Your task to perform on an android device: check the backup settings in the google photos Image 0: 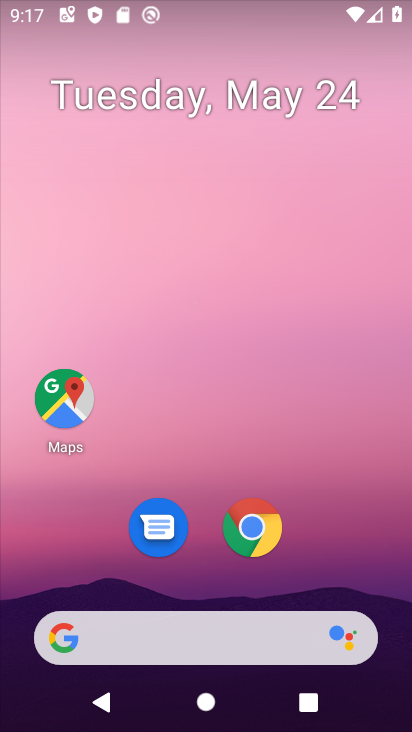
Step 0: drag from (192, 298) to (242, 67)
Your task to perform on an android device: check the backup settings in the google photos Image 1: 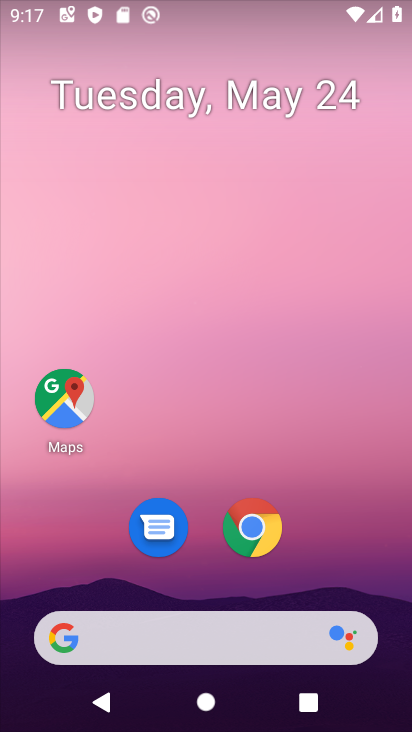
Step 1: drag from (191, 494) to (211, 89)
Your task to perform on an android device: check the backup settings in the google photos Image 2: 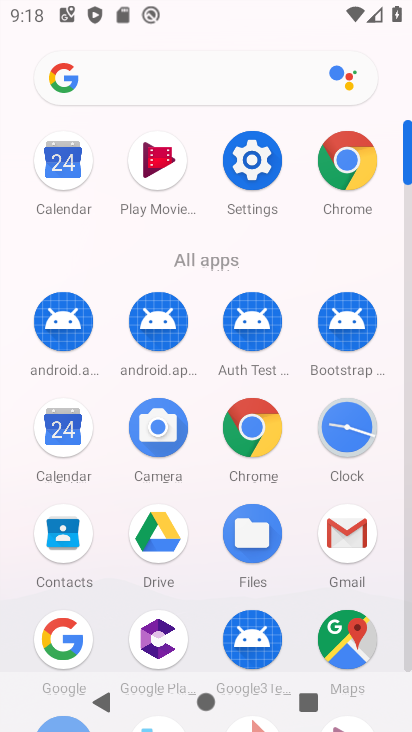
Step 2: drag from (192, 479) to (183, 135)
Your task to perform on an android device: check the backup settings in the google photos Image 3: 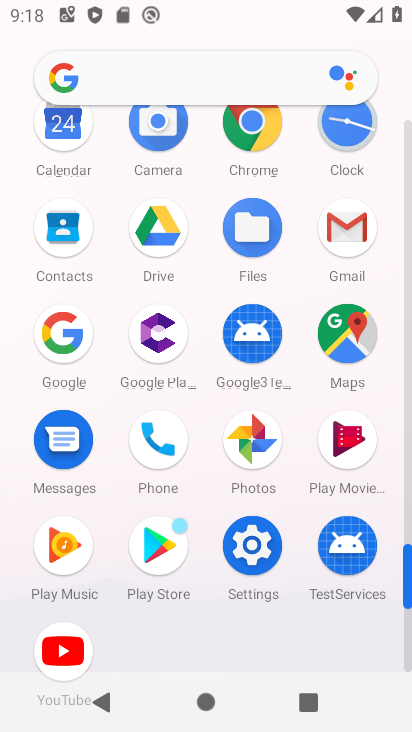
Step 3: click (253, 439)
Your task to perform on an android device: check the backup settings in the google photos Image 4: 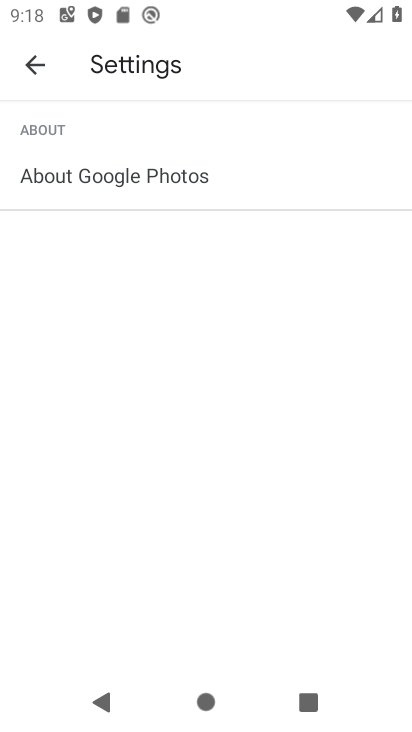
Step 4: click (35, 68)
Your task to perform on an android device: check the backup settings in the google photos Image 5: 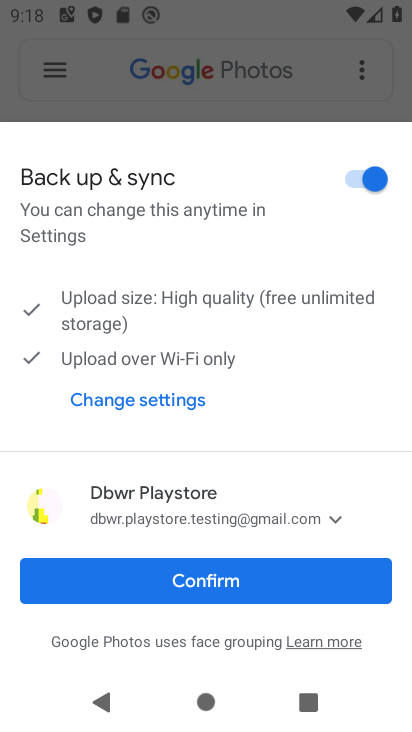
Step 5: click (191, 568)
Your task to perform on an android device: check the backup settings in the google photos Image 6: 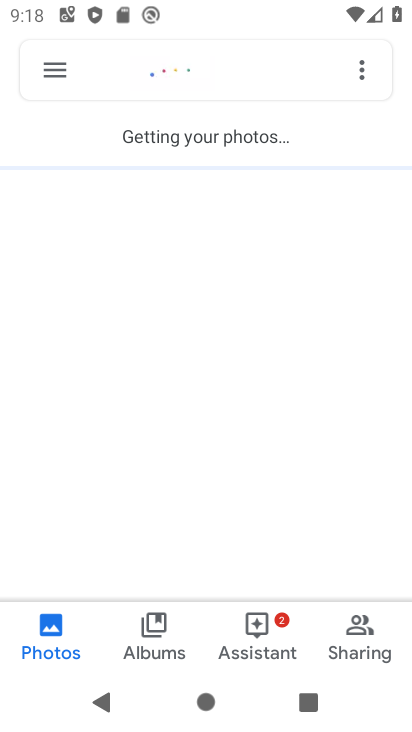
Step 6: click (45, 80)
Your task to perform on an android device: check the backup settings in the google photos Image 7: 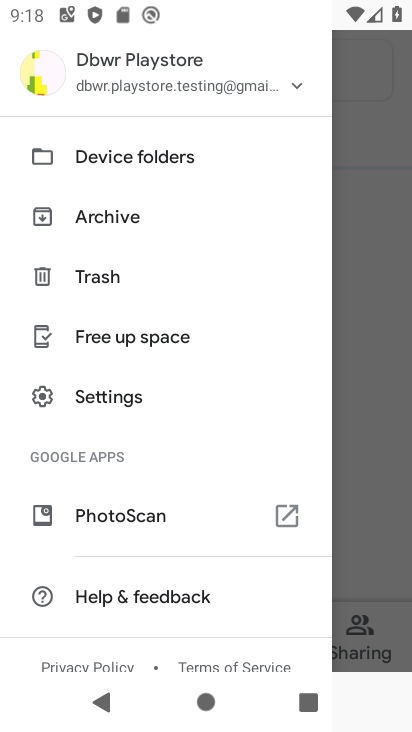
Step 7: click (90, 401)
Your task to perform on an android device: check the backup settings in the google photos Image 8: 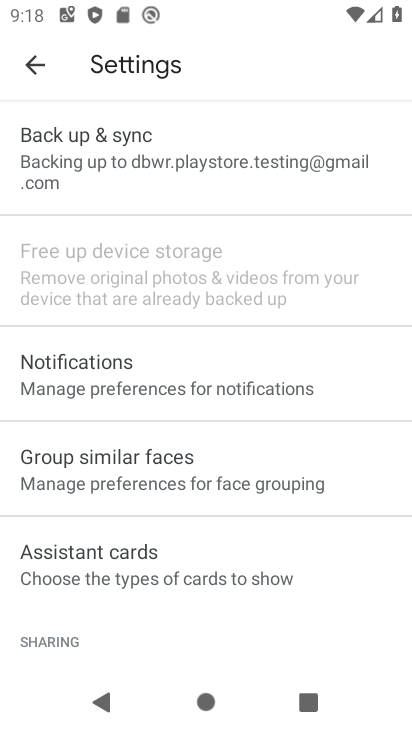
Step 8: click (125, 189)
Your task to perform on an android device: check the backup settings in the google photos Image 9: 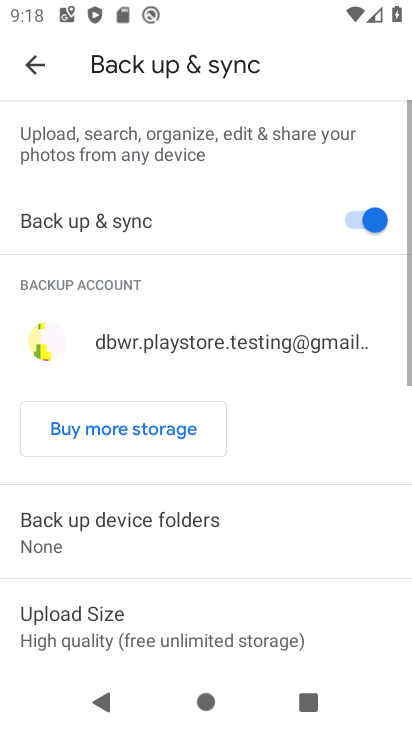
Step 9: task complete